Your task to perform on an android device: turn off location Image 0: 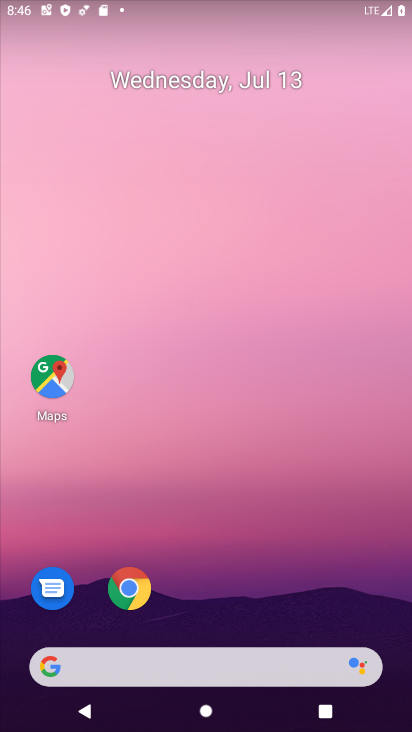
Step 0: drag from (259, 644) to (244, 231)
Your task to perform on an android device: turn off location Image 1: 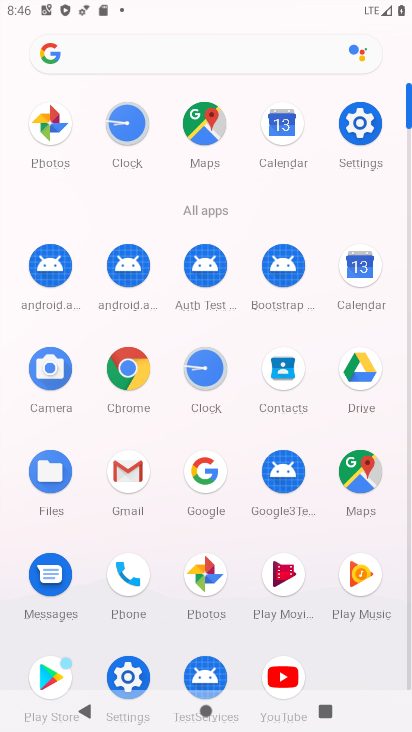
Step 1: click (373, 112)
Your task to perform on an android device: turn off location Image 2: 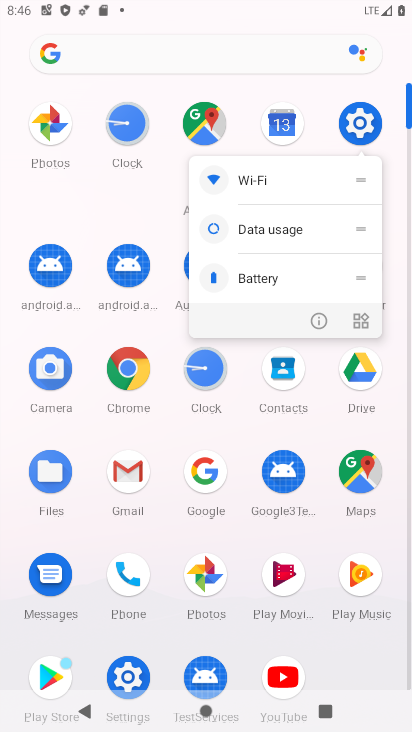
Step 2: click (353, 110)
Your task to perform on an android device: turn off location Image 3: 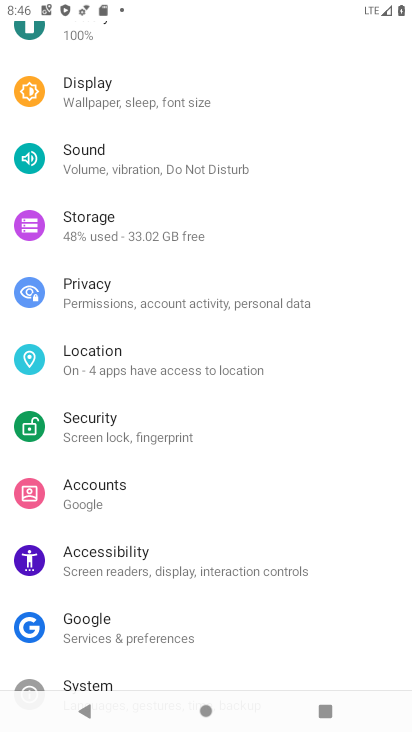
Step 3: click (141, 359)
Your task to perform on an android device: turn off location Image 4: 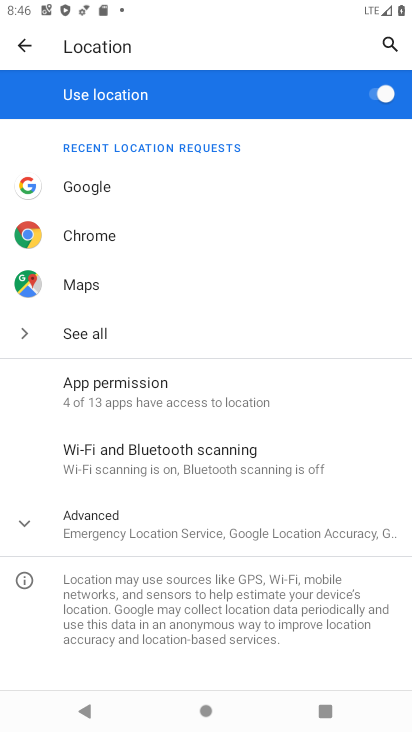
Step 4: click (369, 98)
Your task to perform on an android device: turn off location Image 5: 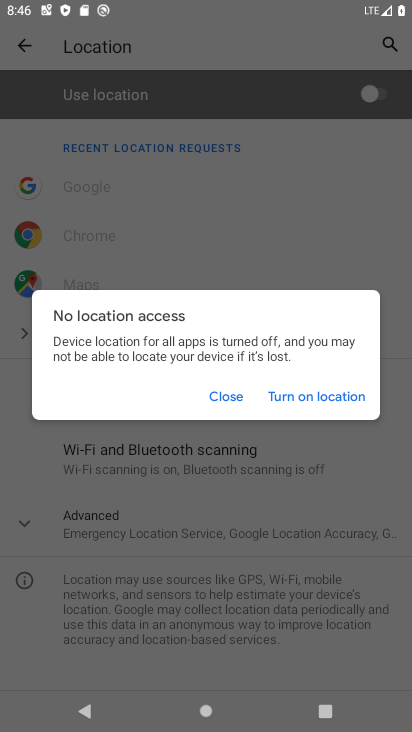
Step 5: click (229, 389)
Your task to perform on an android device: turn off location Image 6: 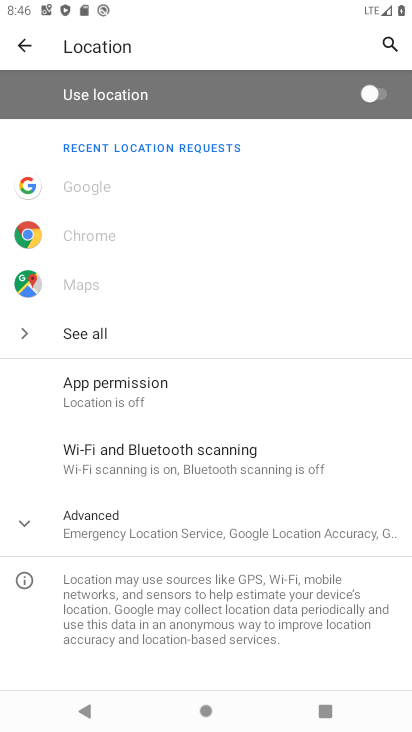
Step 6: task complete